Your task to perform on an android device: Look up the best rated hair dryer on Walmart. Image 0: 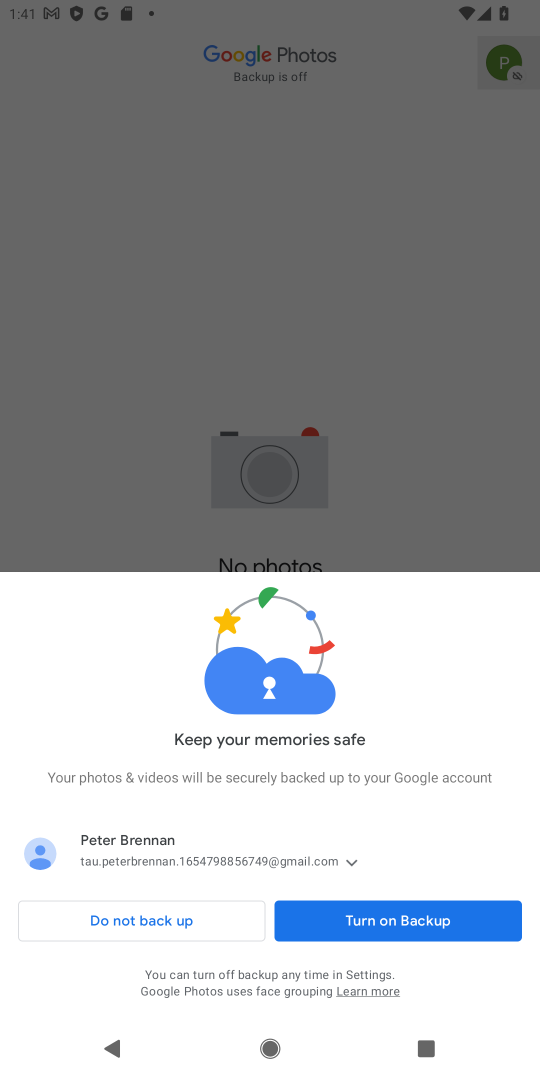
Step 0: press home button
Your task to perform on an android device: Look up the best rated hair dryer on Walmart. Image 1: 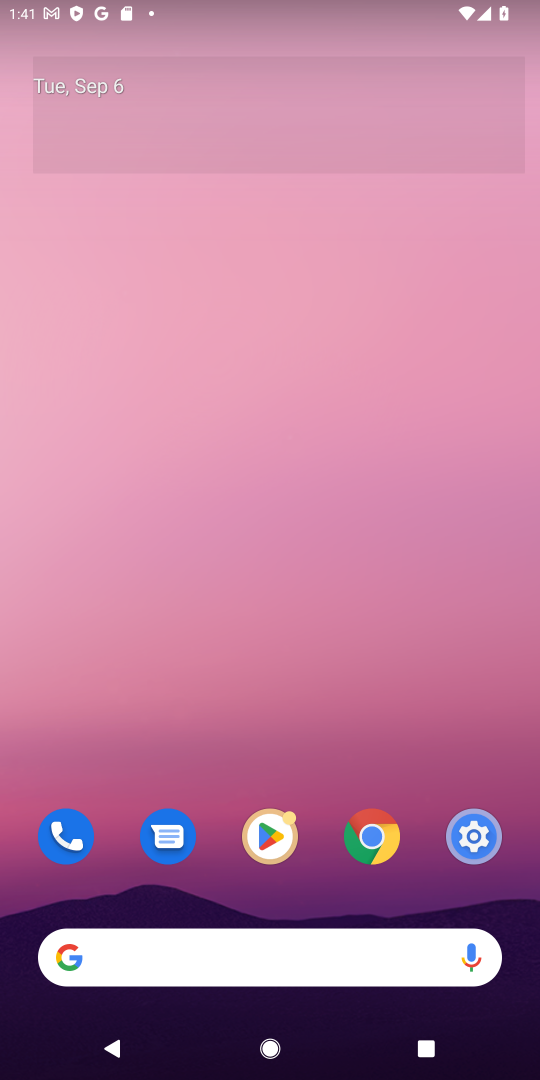
Step 1: click (270, 933)
Your task to perform on an android device: Look up the best rated hair dryer on Walmart. Image 2: 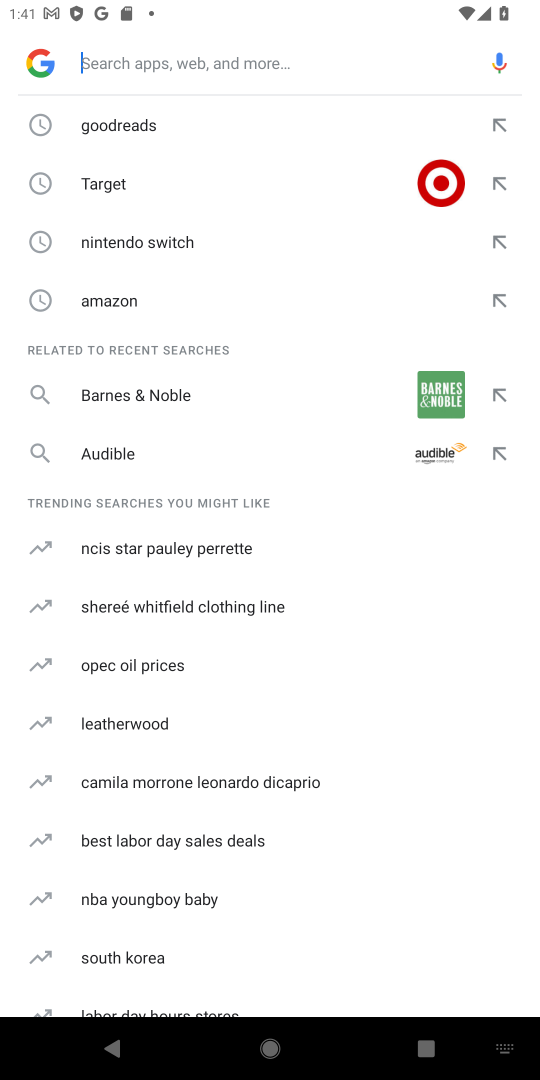
Step 2: type "walmart"
Your task to perform on an android device: Look up the best rated hair dryer on Walmart. Image 3: 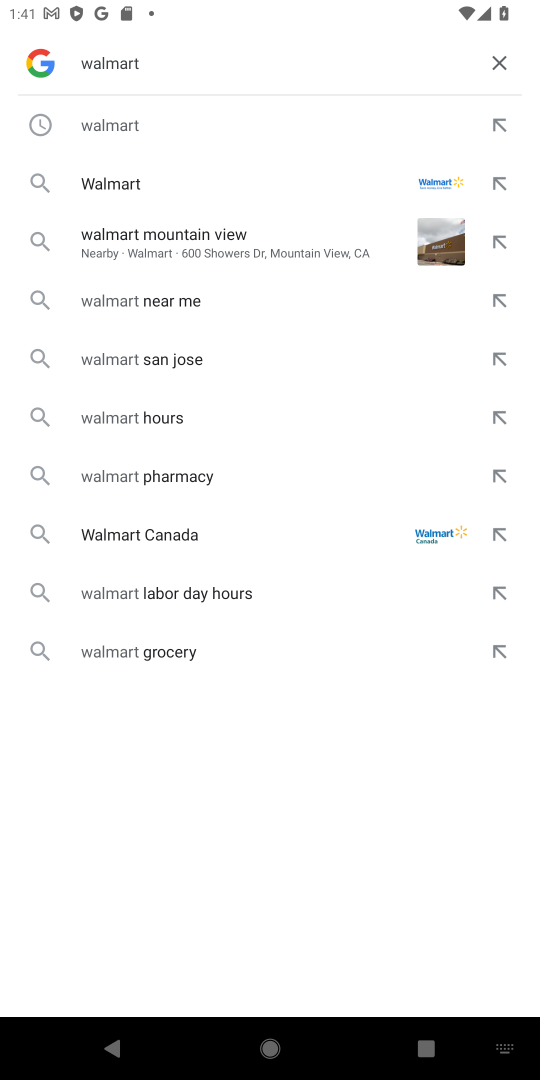
Step 3: click (102, 180)
Your task to perform on an android device: Look up the best rated hair dryer on Walmart. Image 4: 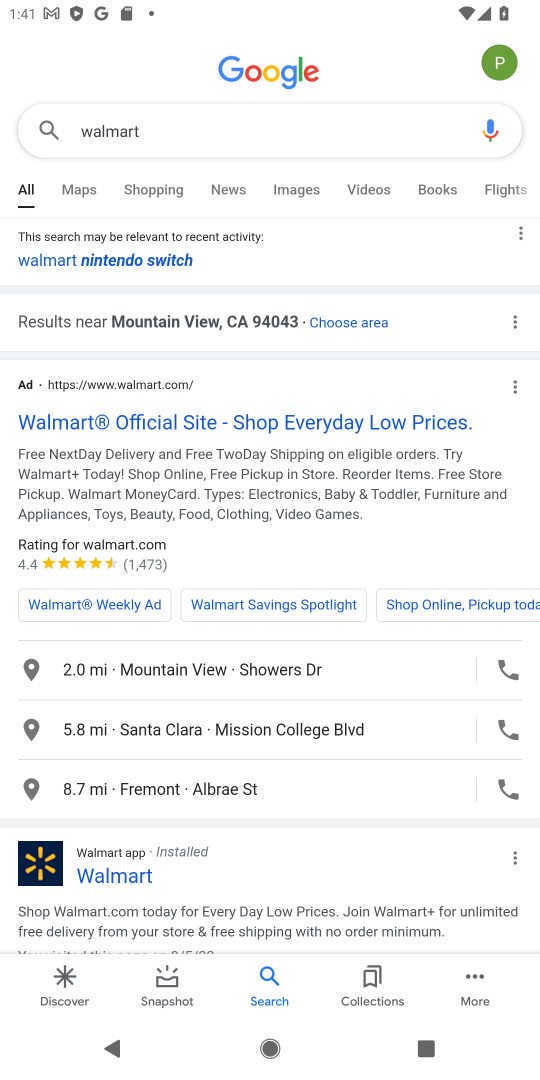
Step 4: click (80, 418)
Your task to perform on an android device: Look up the best rated hair dryer on Walmart. Image 5: 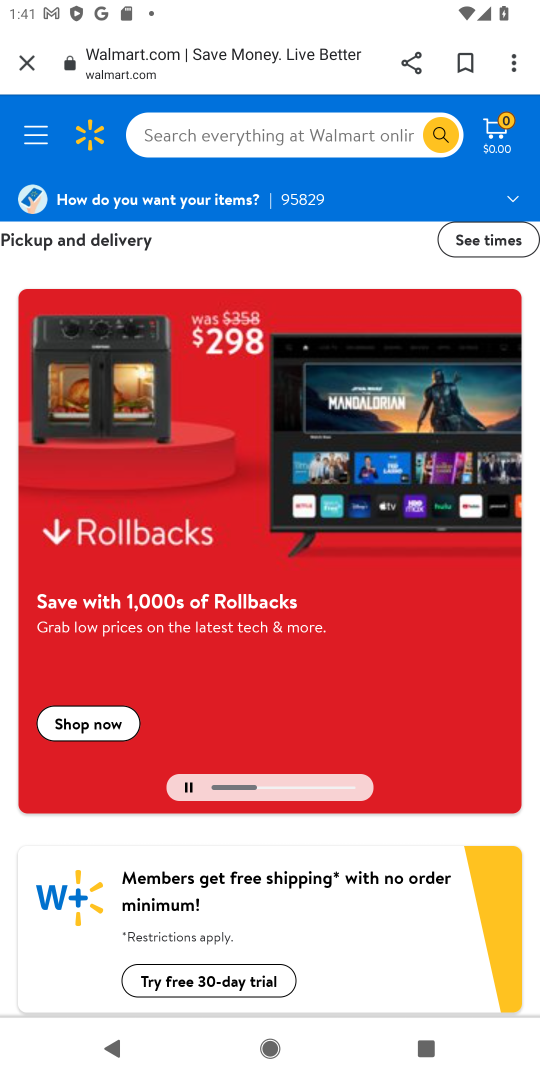
Step 5: click (252, 132)
Your task to perform on an android device: Look up the best rated hair dryer on Walmart. Image 6: 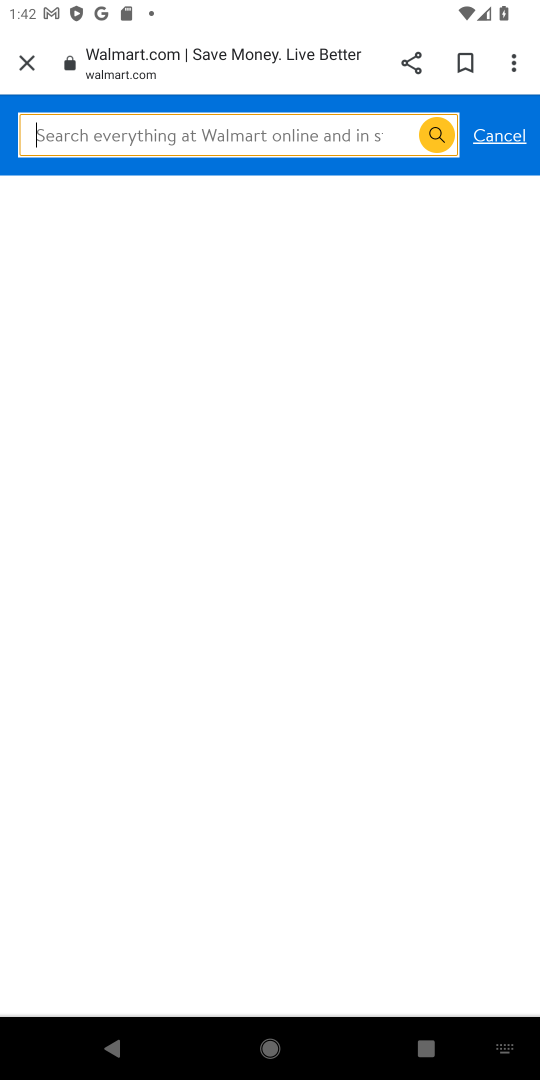
Step 6: type "best rated hair dryer"
Your task to perform on an android device: Look up the best rated hair dryer on Walmart. Image 7: 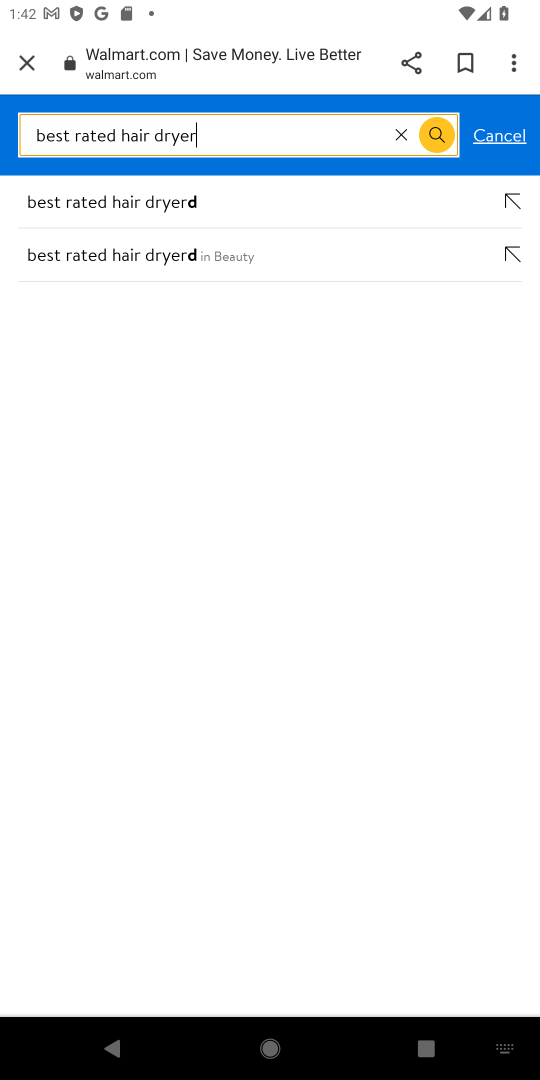
Step 7: click (432, 130)
Your task to perform on an android device: Look up the best rated hair dryer on Walmart. Image 8: 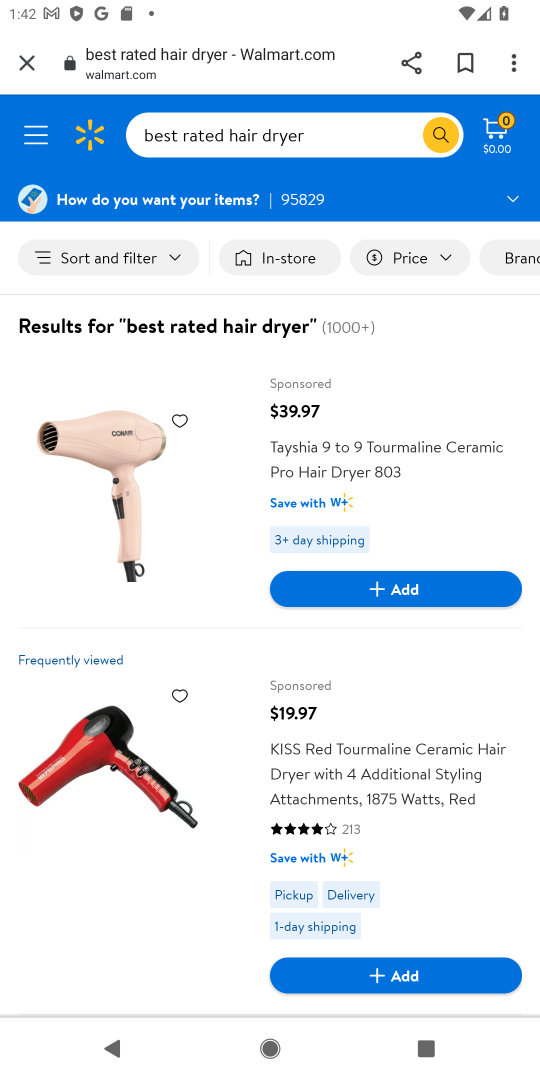
Step 8: task complete